Your task to perform on an android device: turn off notifications in google photos Image 0: 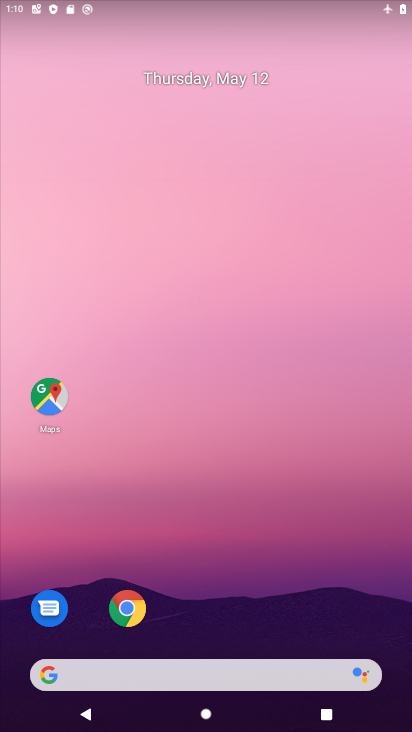
Step 0: drag from (350, 634) to (300, 0)
Your task to perform on an android device: turn off notifications in google photos Image 1: 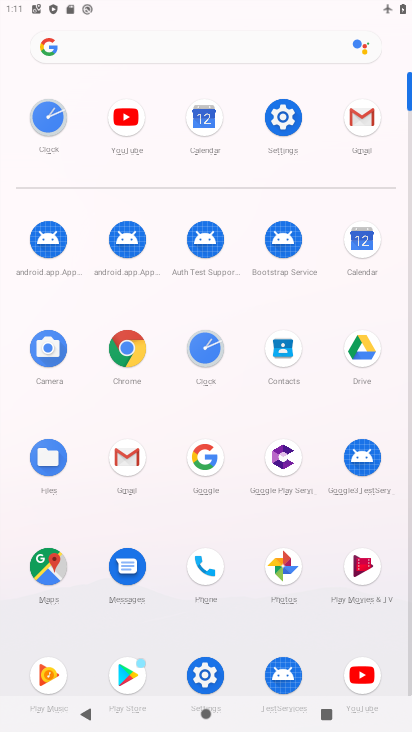
Step 1: click (289, 570)
Your task to perform on an android device: turn off notifications in google photos Image 2: 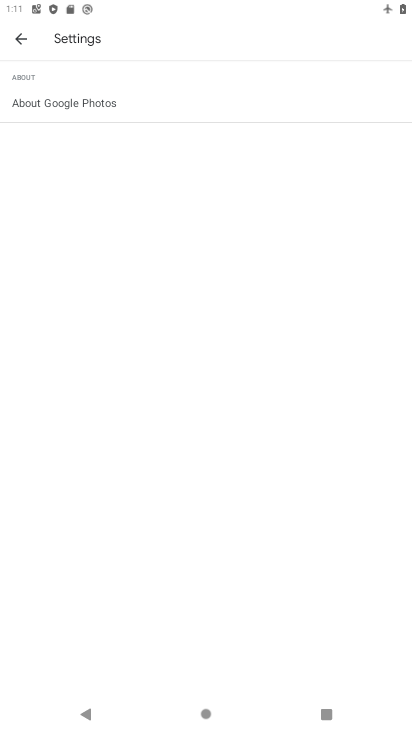
Step 2: click (28, 43)
Your task to perform on an android device: turn off notifications in google photos Image 3: 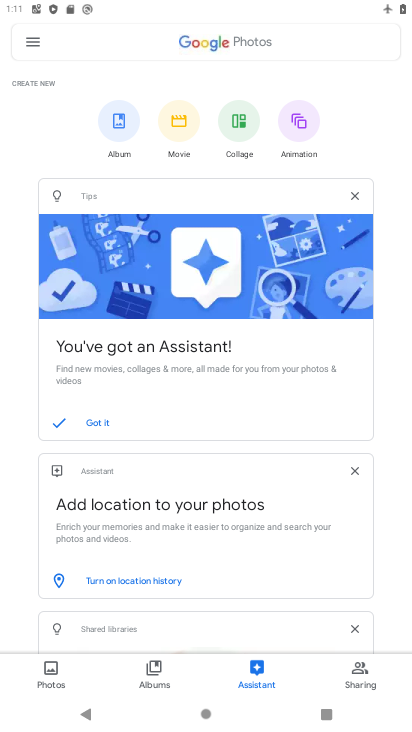
Step 3: click (29, 43)
Your task to perform on an android device: turn off notifications in google photos Image 4: 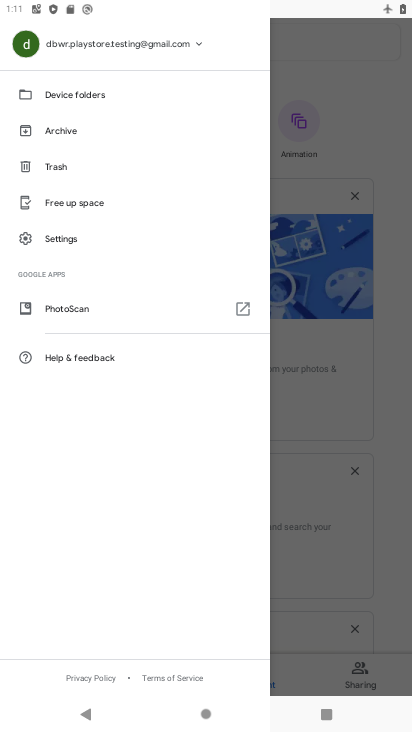
Step 4: click (61, 245)
Your task to perform on an android device: turn off notifications in google photos Image 5: 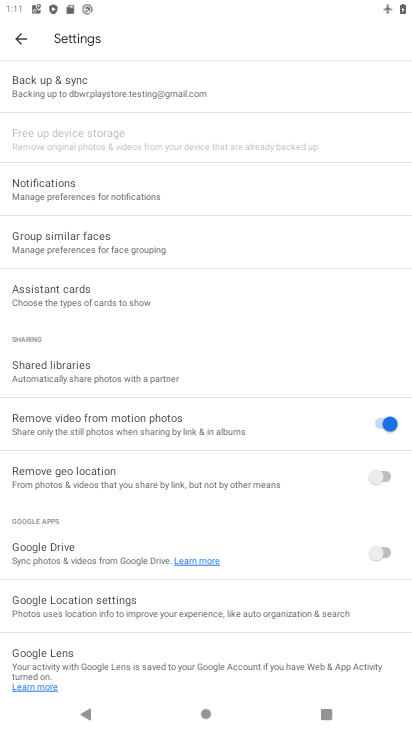
Step 5: click (67, 195)
Your task to perform on an android device: turn off notifications in google photos Image 6: 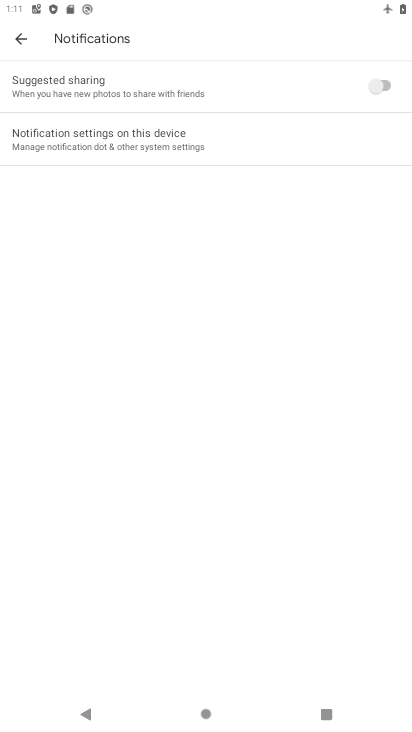
Step 6: click (168, 143)
Your task to perform on an android device: turn off notifications in google photos Image 7: 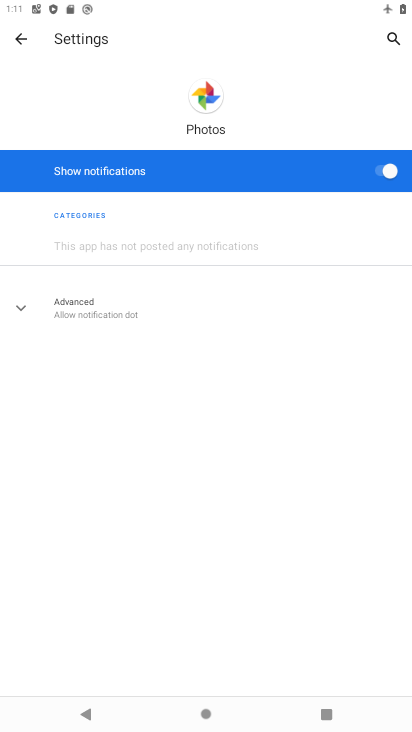
Step 7: click (399, 168)
Your task to perform on an android device: turn off notifications in google photos Image 8: 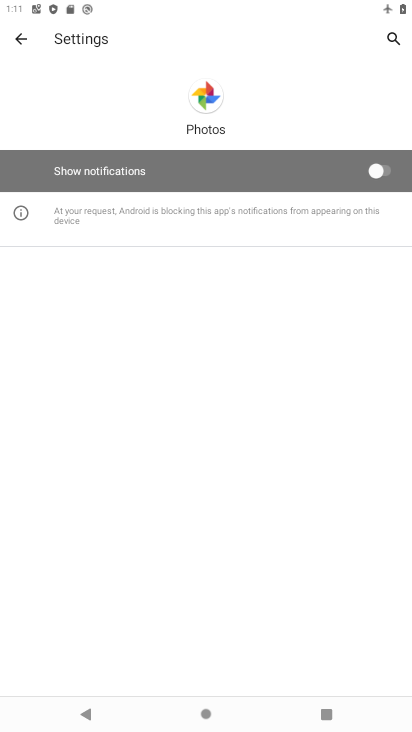
Step 8: task complete